Your task to perform on an android device: What's on my calendar tomorrow? Image 0: 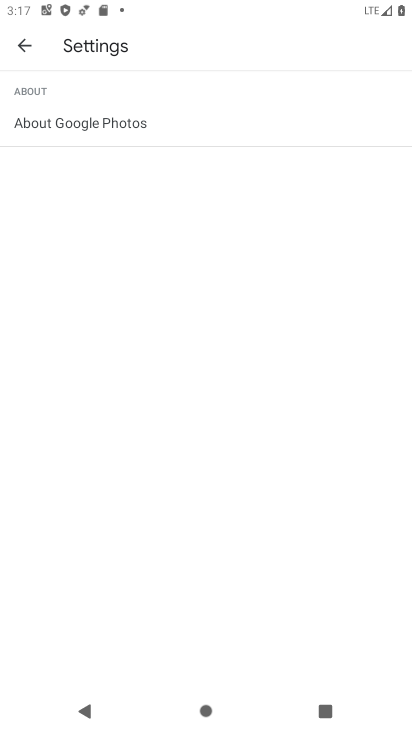
Step 0: press home button
Your task to perform on an android device: What's on my calendar tomorrow? Image 1: 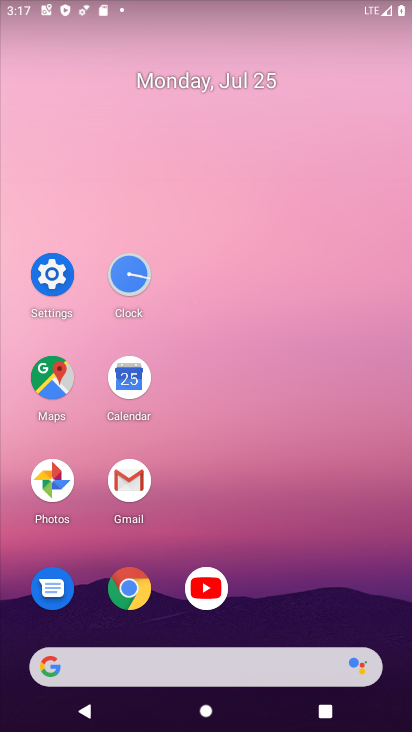
Step 1: click (119, 374)
Your task to perform on an android device: What's on my calendar tomorrow? Image 2: 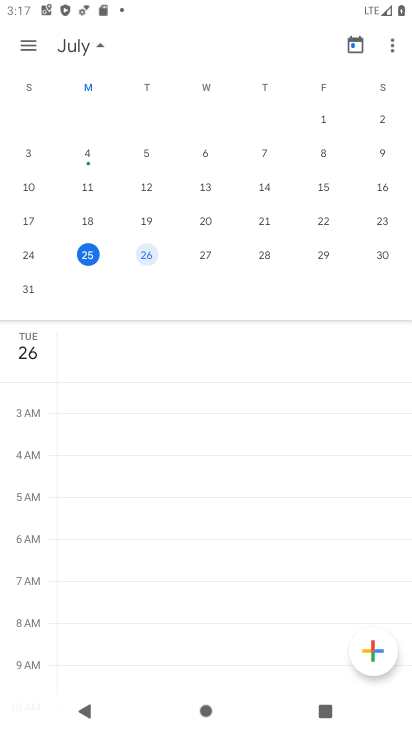
Step 2: click (146, 255)
Your task to perform on an android device: What's on my calendar tomorrow? Image 3: 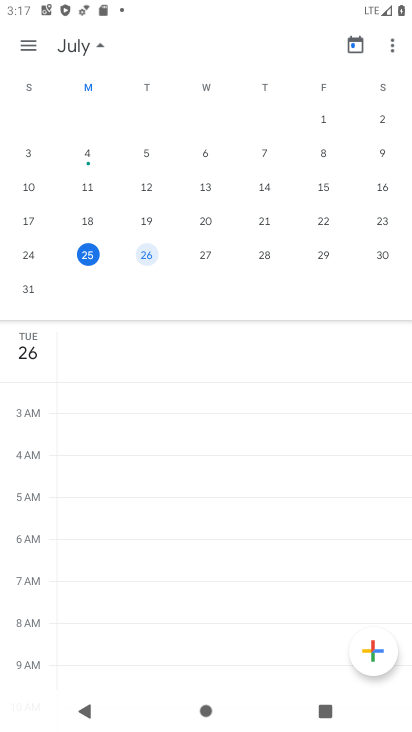
Step 3: task complete